Your task to perform on an android device: Open the calendar and show me this week's events? Image 0: 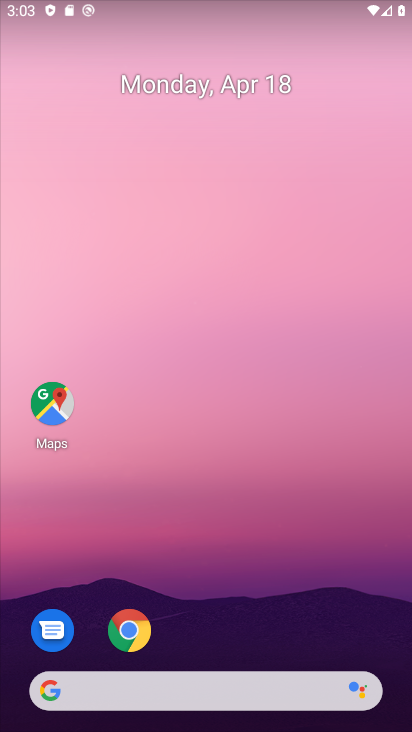
Step 0: drag from (311, 600) to (367, 84)
Your task to perform on an android device: Open the calendar and show me this week's events? Image 1: 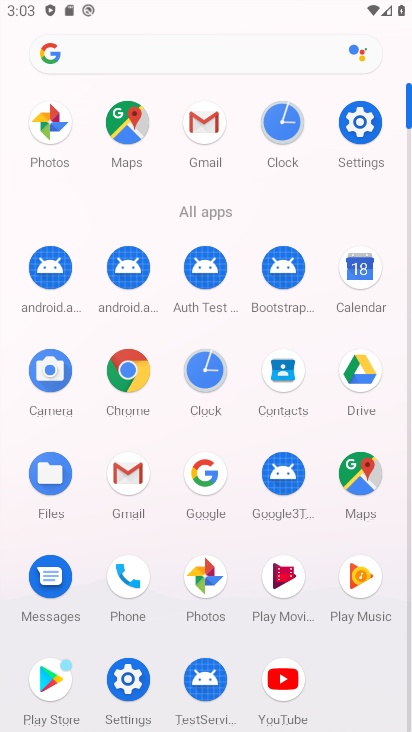
Step 1: click (351, 268)
Your task to perform on an android device: Open the calendar and show me this week's events? Image 2: 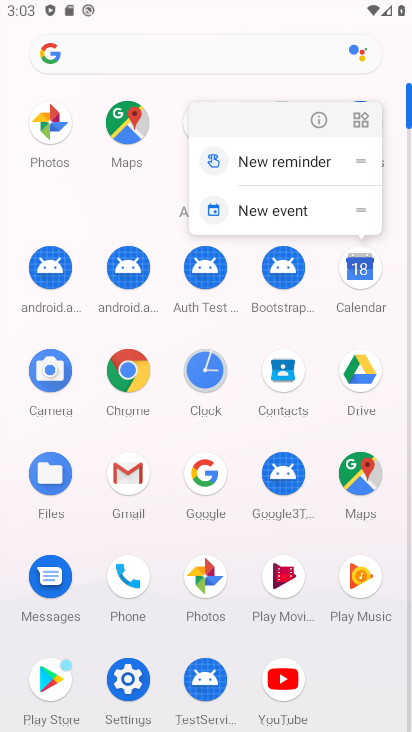
Step 2: click (351, 268)
Your task to perform on an android device: Open the calendar and show me this week's events? Image 3: 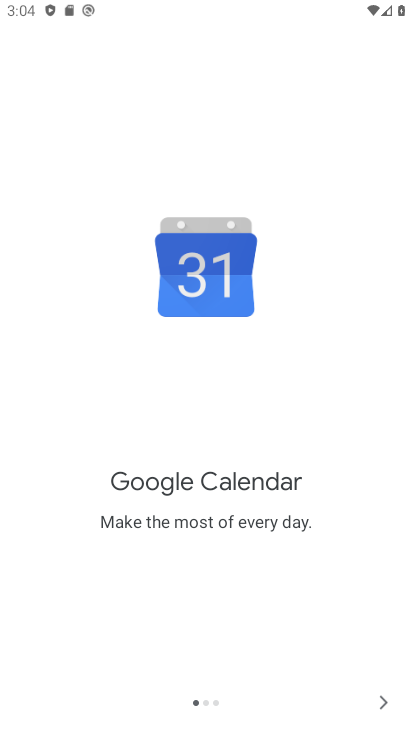
Step 3: click (384, 692)
Your task to perform on an android device: Open the calendar and show me this week's events? Image 4: 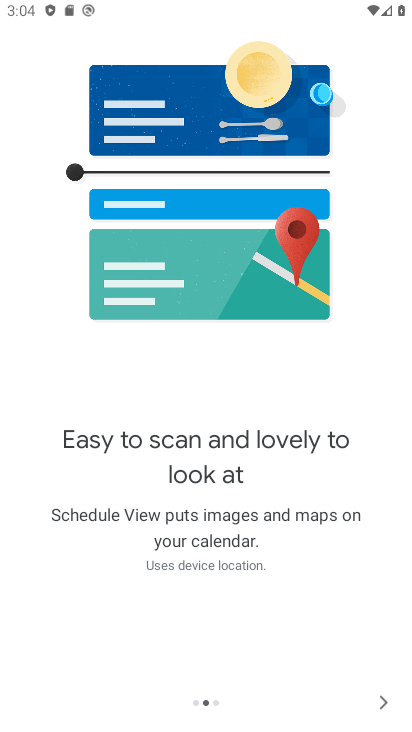
Step 4: click (384, 691)
Your task to perform on an android device: Open the calendar and show me this week's events? Image 5: 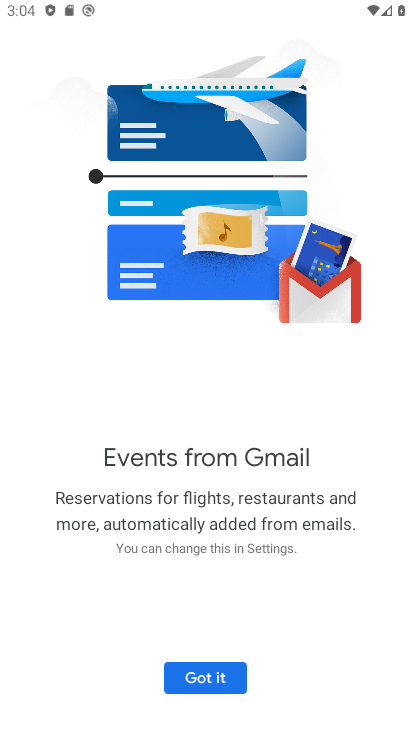
Step 5: click (213, 685)
Your task to perform on an android device: Open the calendar and show me this week's events? Image 6: 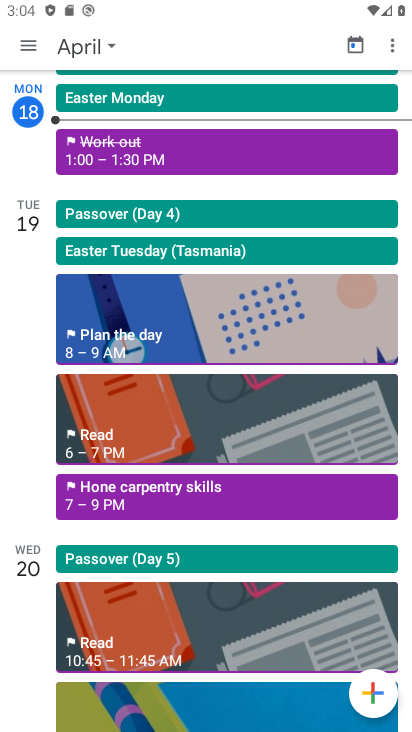
Step 6: task complete